Your task to perform on an android device: toggle data saver in the chrome app Image 0: 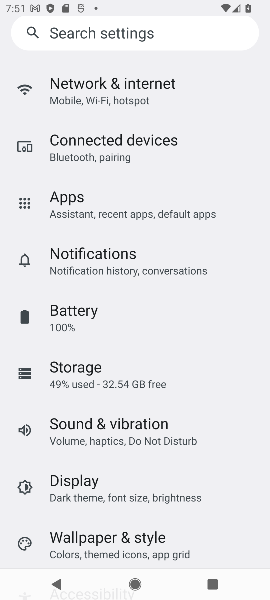
Step 0: press home button
Your task to perform on an android device: toggle data saver in the chrome app Image 1: 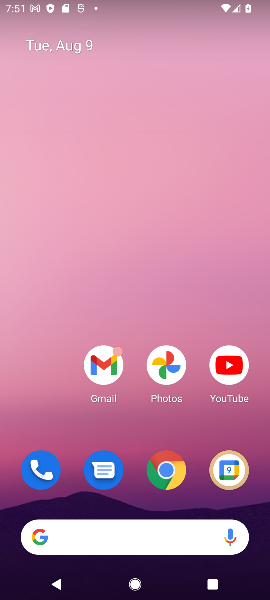
Step 1: click (165, 475)
Your task to perform on an android device: toggle data saver in the chrome app Image 2: 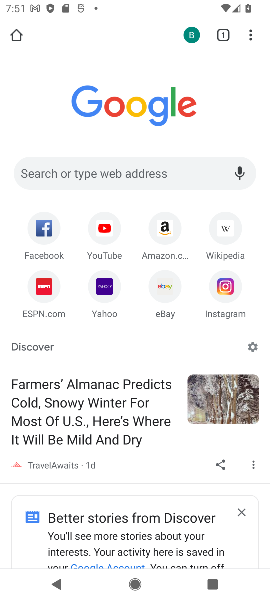
Step 2: click (248, 33)
Your task to perform on an android device: toggle data saver in the chrome app Image 3: 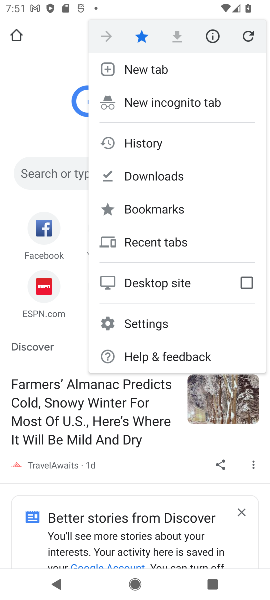
Step 3: click (139, 325)
Your task to perform on an android device: toggle data saver in the chrome app Image 4: 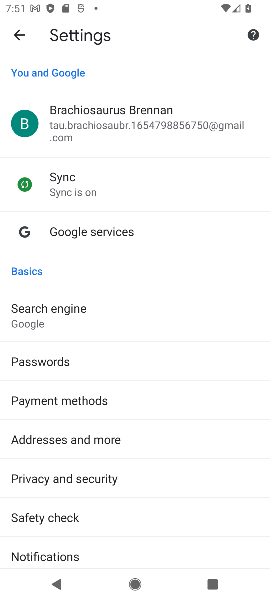
Step 4: drag from (104, 483) to (144, 121)
Your task to perform on an android device: toggle data saver in the chrome app Image 5: 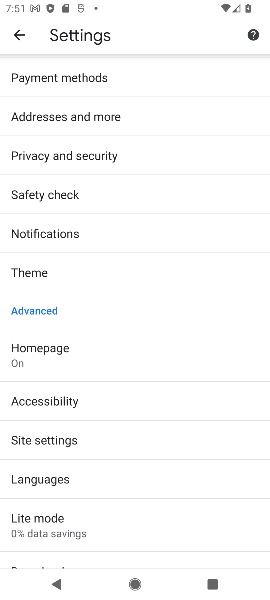
Step 5: click (48, 527)
Your task to perform on an android device: toggle data saver in the chrome app Image 6: 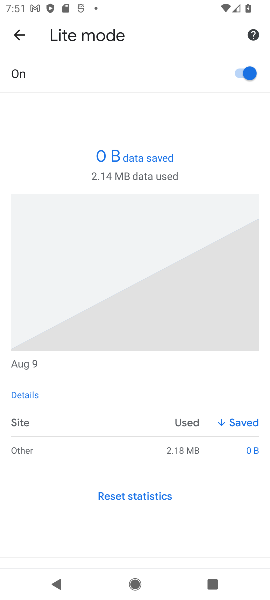
Step 6: click (229, 73)
Your task to perform on an android device: toggle data saver in the chrome app Image 7: 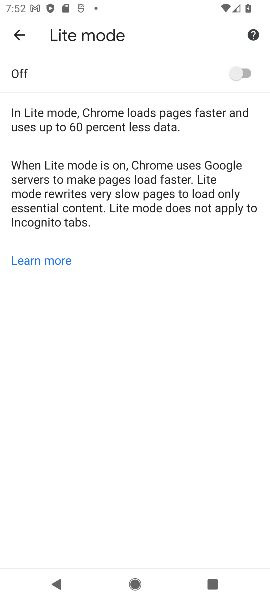
Step 7: task complete